Your task to perform on an android device: empty trash in the gmail app Image 0: 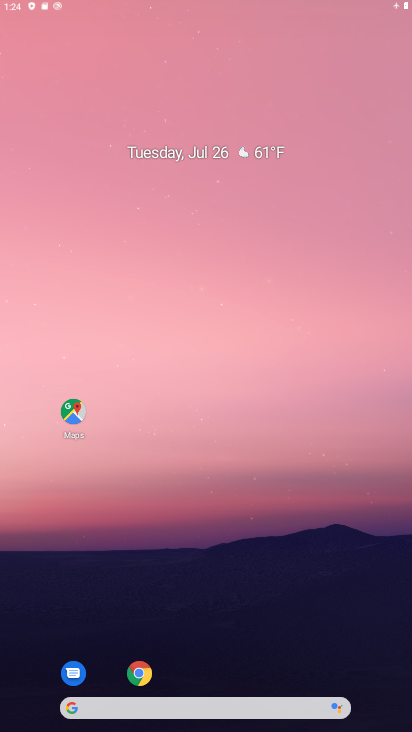
Step 0: drag from (212, 669) to (273, 230)
Your task to perform on an android device: empty trash in the gmail app Image 1: 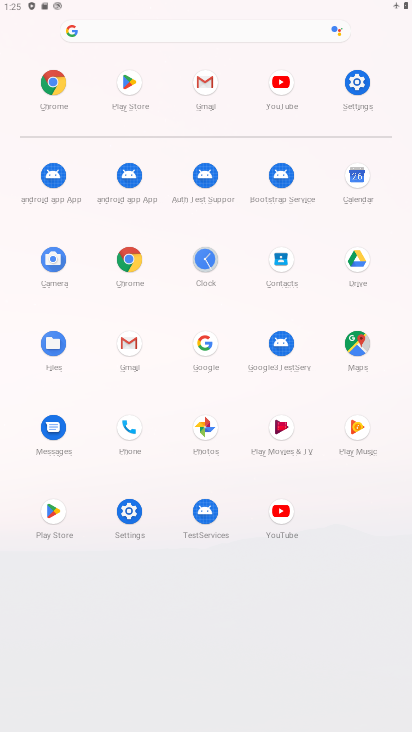
Step 1: click (132, 341)
Your task to perform on an android device: empty trash in the gmail app Image 2: 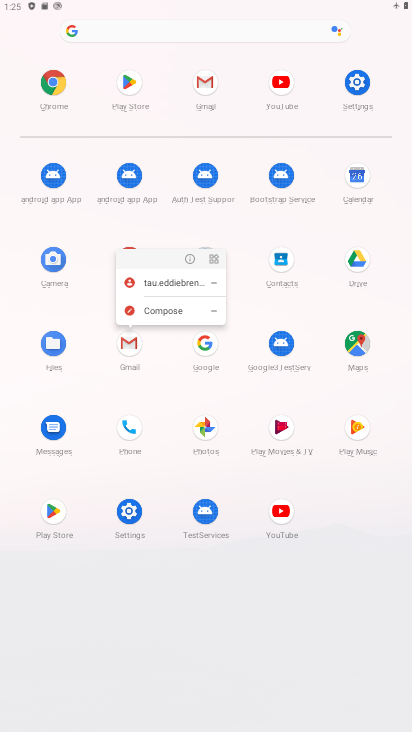
Step 2: click (185, 259)
Your task to perform on an android device: empty trash in the gmail app Image 3: 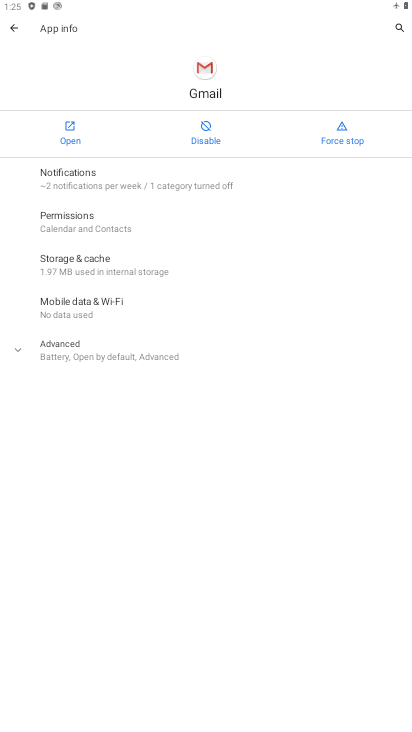
Step 3: click (78, 124)
Your task to perform on an android device: empty trash in the gmail app Image 4: 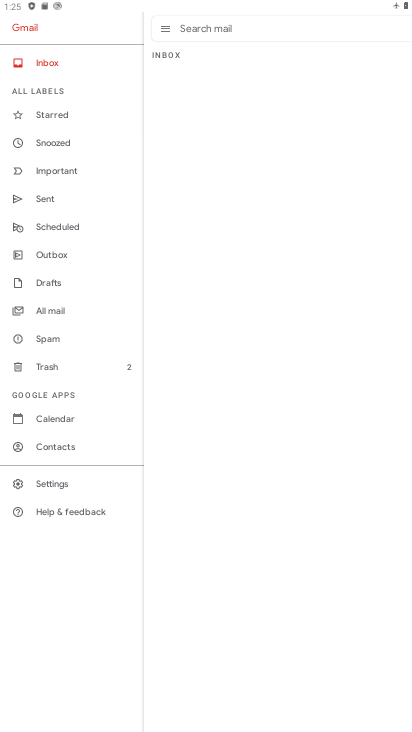
Step 4: click (41, 361)
Your task to perform on an android device: empty trash in the gmail app Image 5: 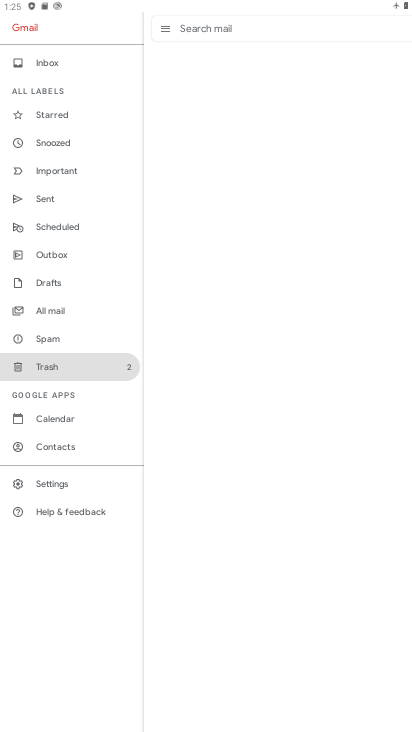
Step 5: click (218, 410)
Your task to perform on an android device: empty trash in the gmail app Image 6: 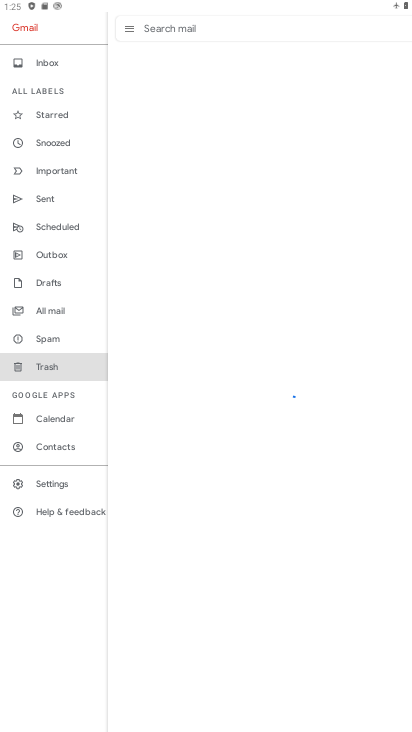
Step 6: task complete